Your task to perform on an android device: Search for Mexican restaurants on Maps Image 0: 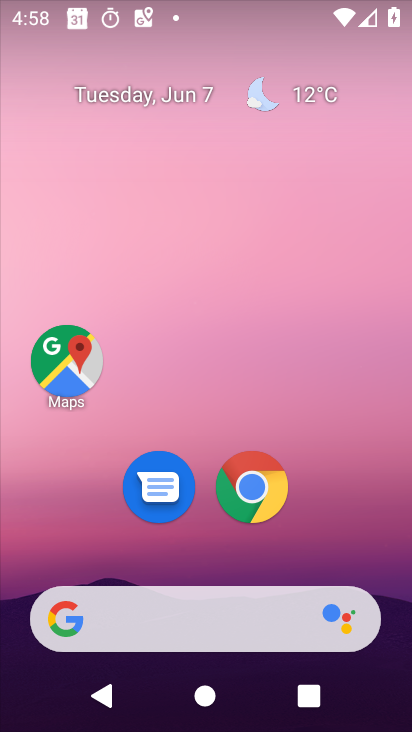
Step 0: click (65, 363)
Your task to perform on an android device: Search for Mexican restaurants on Maps Image 1: 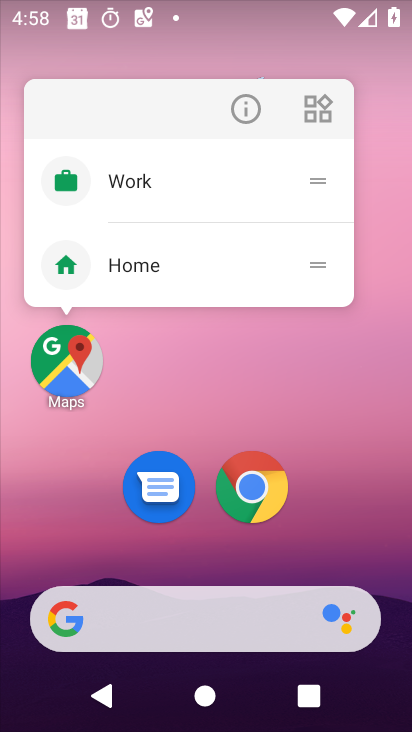
Step 1: click (77, 353)
Your task to perform on an android device: Search for Mexican restaurants on Maps Image 2: 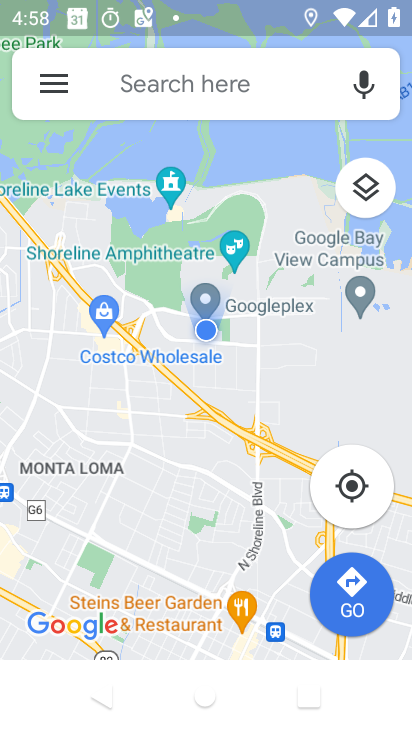
Step 2: click (161, 80)
Your task to perform on an android device: Search for Mexican restaurants on Maps Image 3: 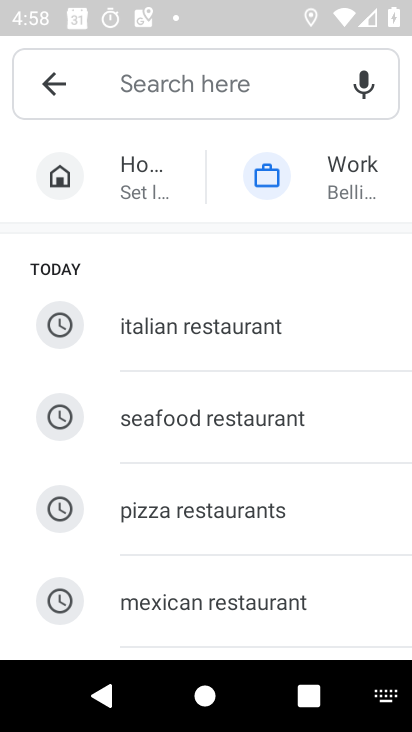
Step 3: click (169, 591)
Your task to perform on an android device: Search for Mexican restaurants on Maps Image 4: 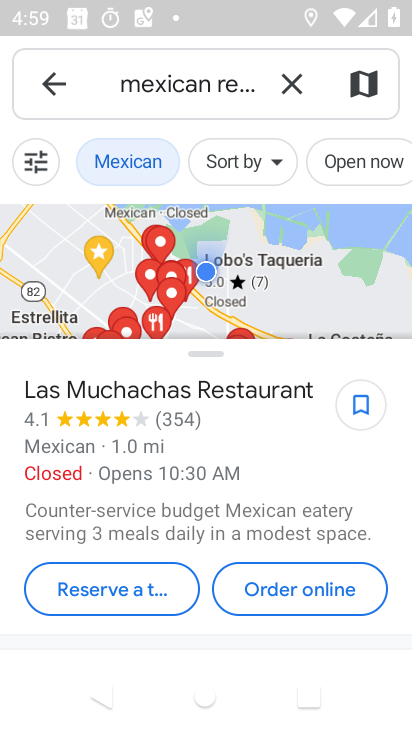
Step 4: task complete